Your task to perform on an android device: Open the calendar and show me this week's events? Image 0: 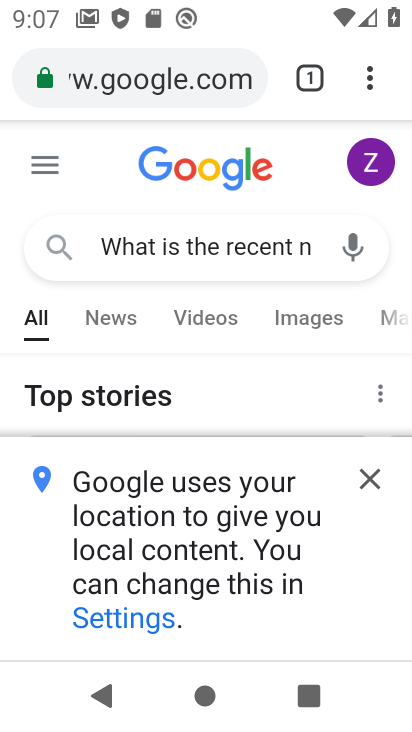
Step 0: press home button
Your task to perform on an android device: Open the calendar and show me this week's events? Image 1: 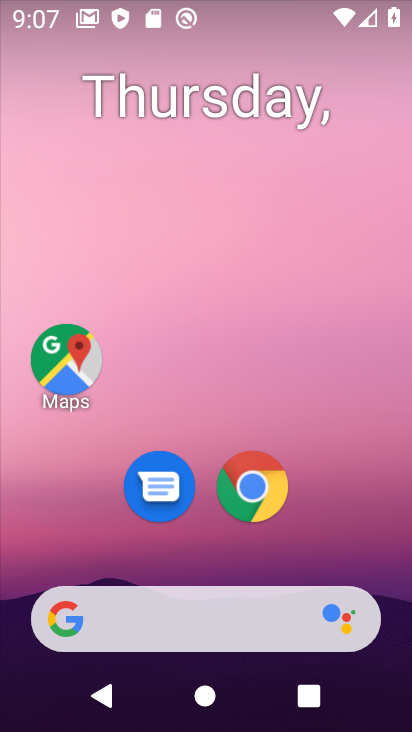
Step 1: drag from (270, 370) to (307, 23)
Your task to perform on an android device: Open the calendar and show me this week's events? Image 2: 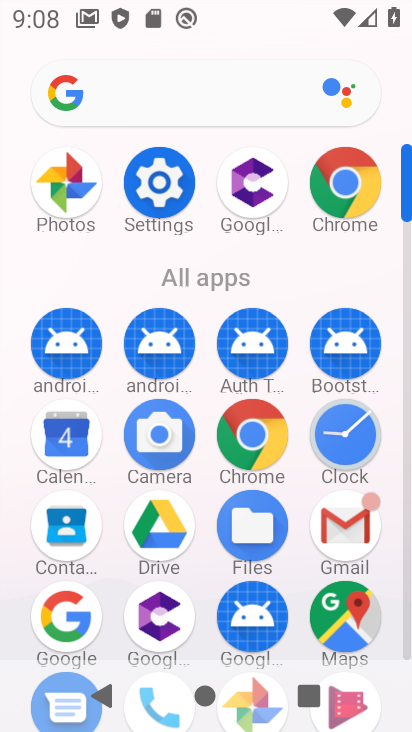
Step 2: click (80, 449)
Your task to perform on an android device: Open the calendar and show me this week's events? Image 3: 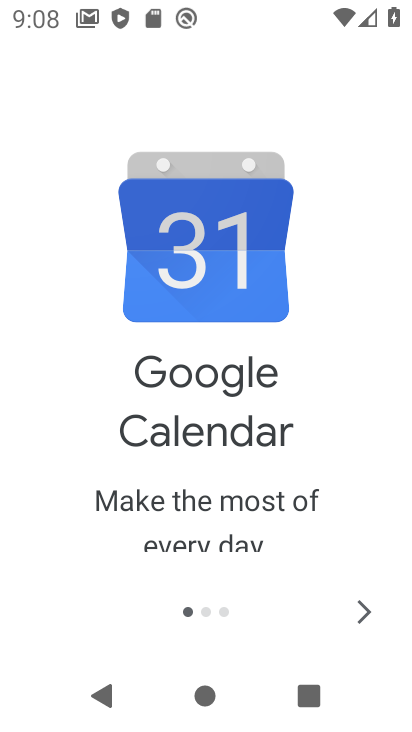
Step 3: click (362, 608)
Your task to perform on an android device: Open the calendar and show me this week's events? Image 4: 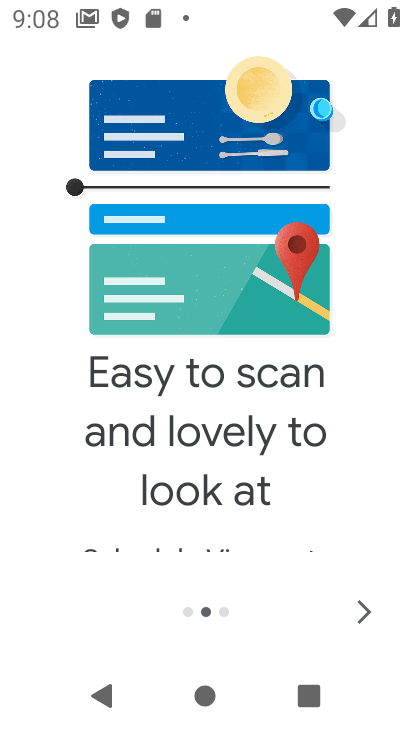
Step 4: click (362, 608)
Your task to perform on an android device: Open the calendar and show me this week's events? Image 5: 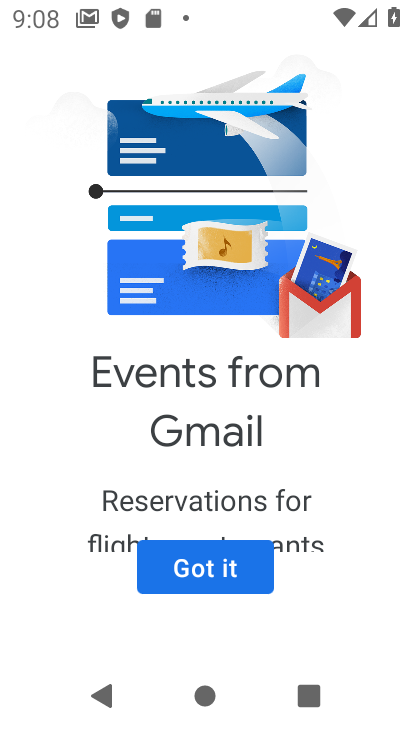
Step 5: click (362, 608)
Your task to perform on an android device: Open the calendar and show me this week's events? Image 6: 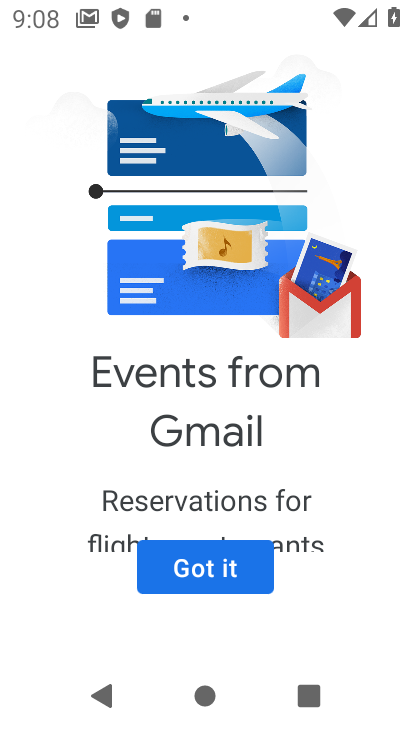
Step 6: task complete